Your task to perform on an android device: What's the weather? Image 0: 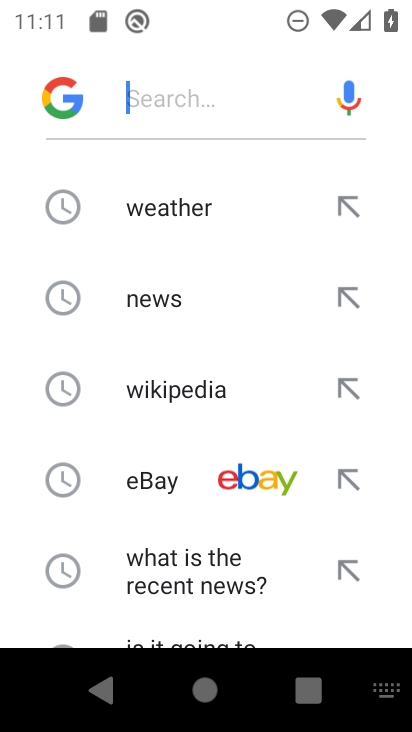
Step 0: click (196, 214)
Your task to perform on an android device: What's the weather? Image 1: 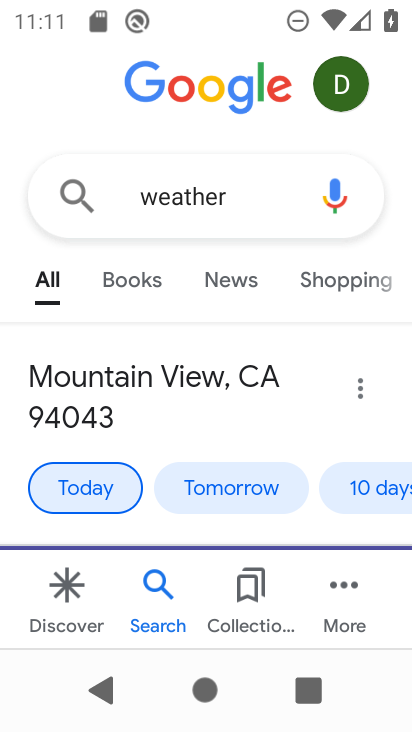
Step 1: task complete